Your task to perform on an android device: turn off wifi Image 0: 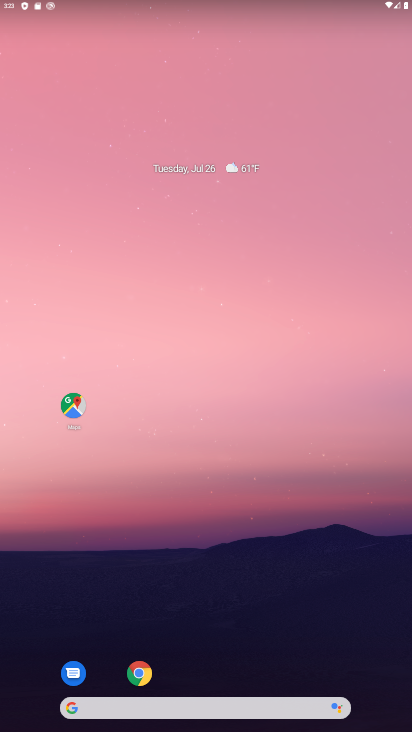
Step 0: press home button
Your task to perform on an android device: turn off wifi Image 1: 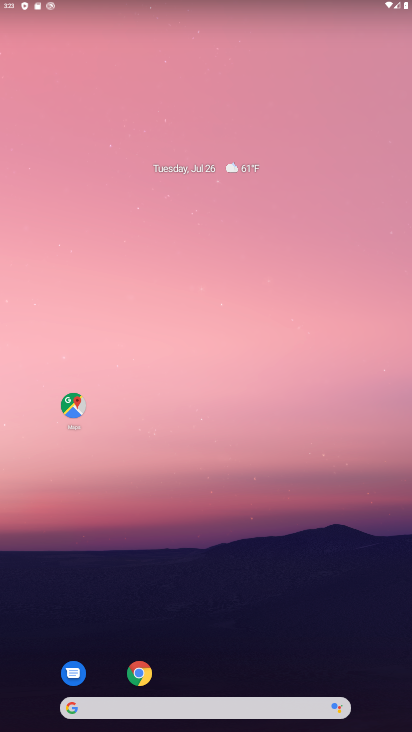
Step 1: drag from (231, 7) to (279, 402)
Your task to perform on an android device: turn off wifi Image 2: 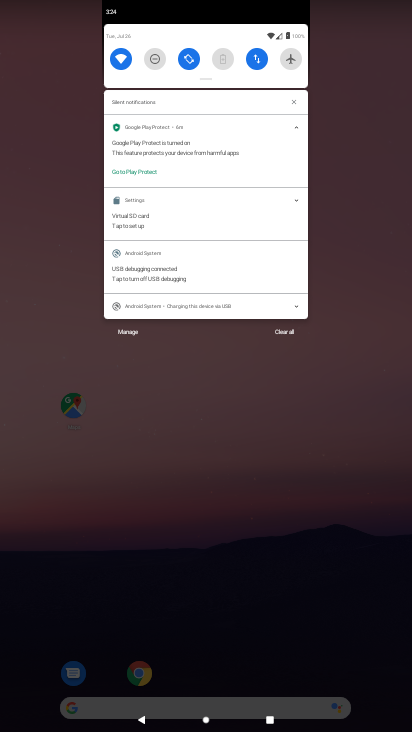
Step 2: click (117, 55)
Your task to perform on an android device: turn off wifi Image 3: 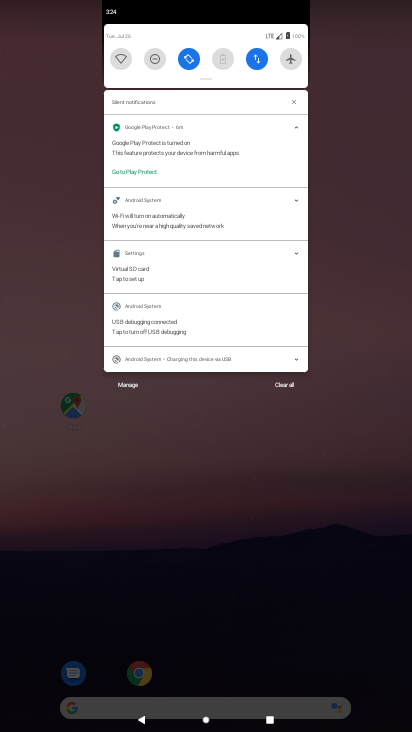
Step 3: task complete